Your task to perform on an android device: Open sound settings Image 0: 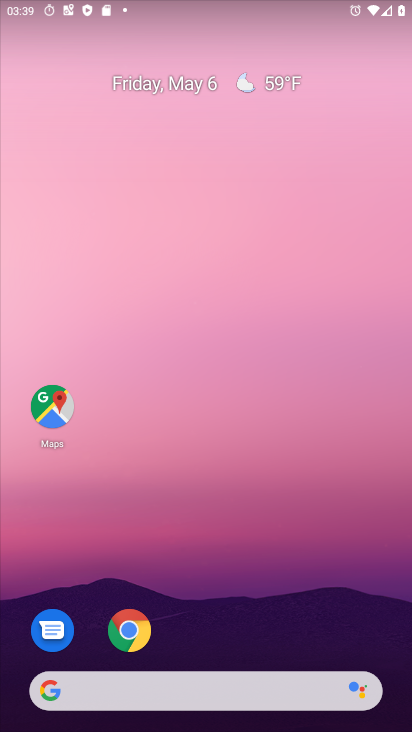
Step 0: drag from (198, 623) to (204, 242)
Your task to perform on an android device: Open sound settings Image 1: 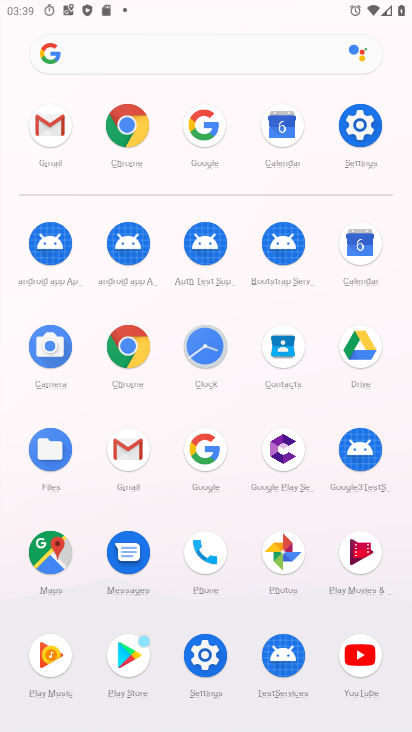
Step 1: click (339, 130)
Your task to perform on an android device: Open sound settings Image 2: 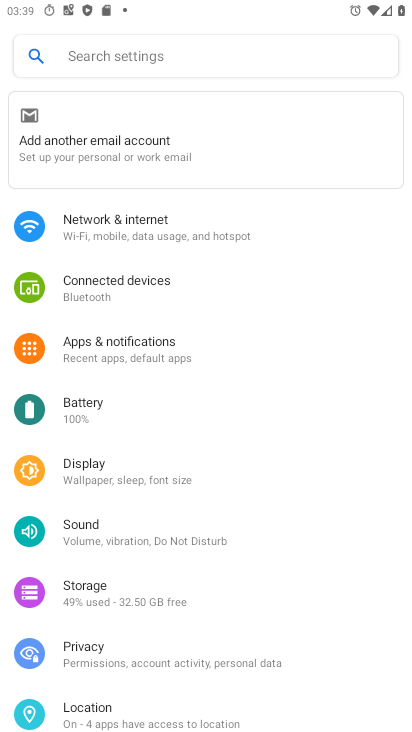
Step 2: click (108, 519)
Your task to perform on an android device: Open sound settings Image 3: 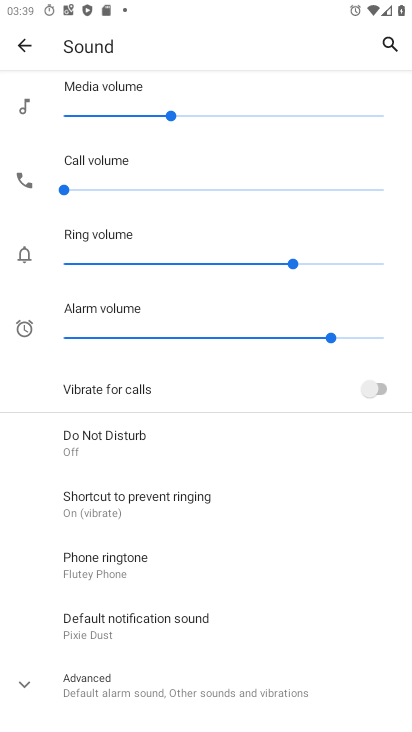
Step 3: task complete